Your task to perform on an android device: turn off location Image 0: 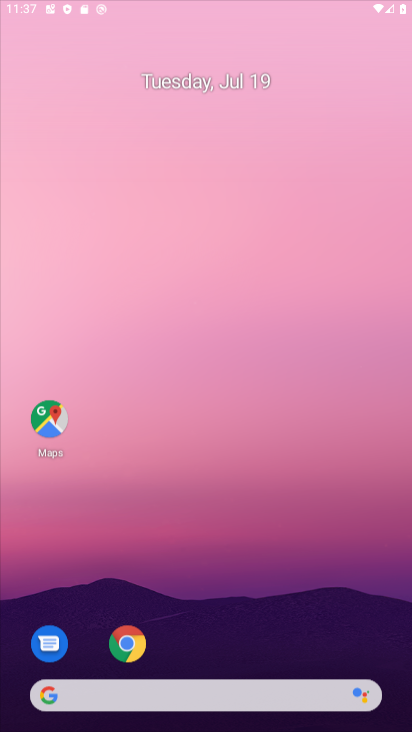
Step 0: press home button
Your task to perform on an android device: turn off location Image 1: 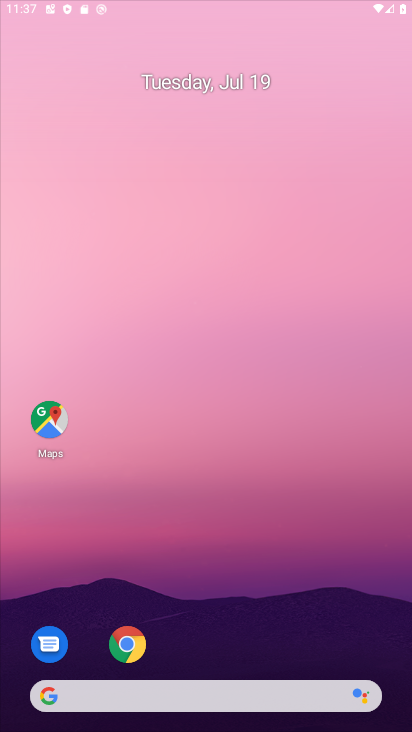
Step 1: drag from (346, 549) to (410, 481)
Your task to perform on an android device: turn off location Image 2: 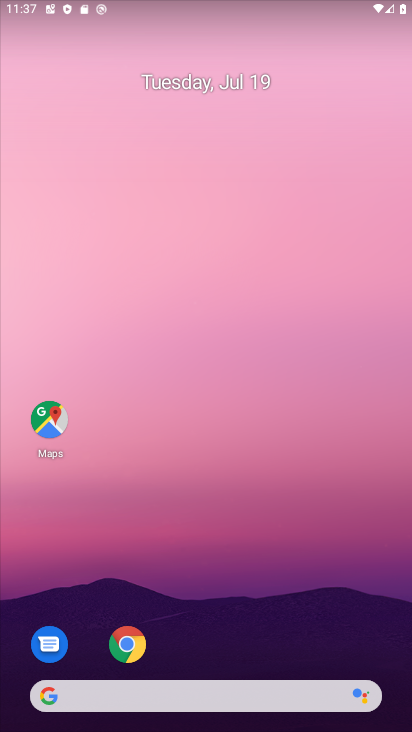
Step 2: drag from (282, 690) to (297, 228)
Your task to perform on an android device: turn off location Image 3: 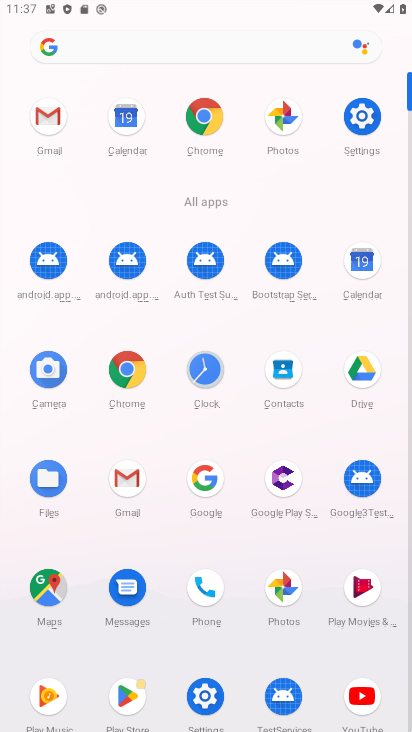
Step 3: click (362, 141)
Your task to perform on an android device: turn off location Image 4: 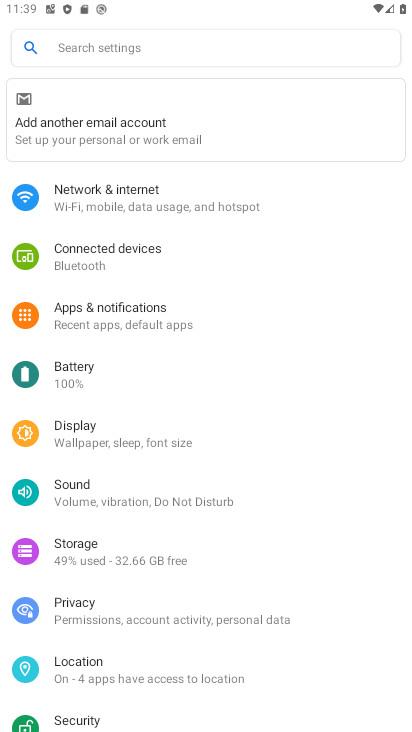
Step 4: drag from (107, 631) to (94, 524)
Your task to perform on an android device: turn off location Image 5: 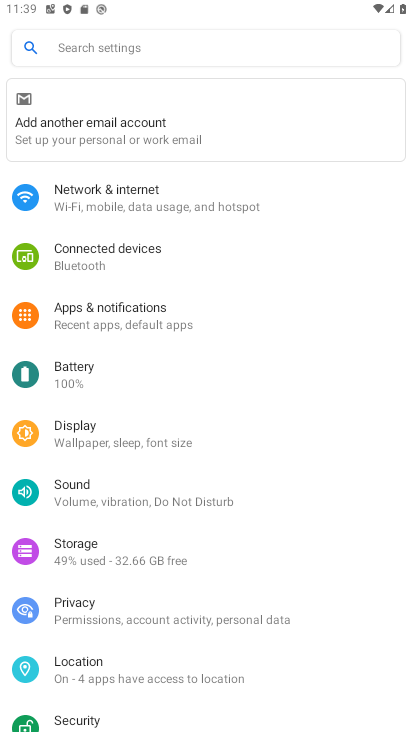
Step 5: click (76, 660)
Your task to perform on an android device: turn off location Image 6: 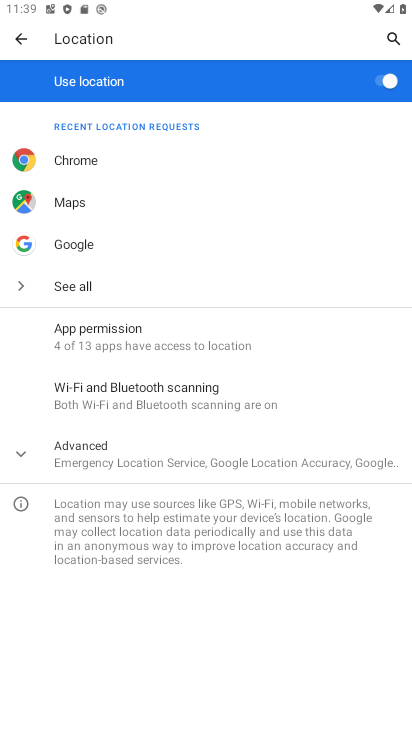
Step 6: click (259, 92)
Your task to perform on an android device: turn off location Image 7: 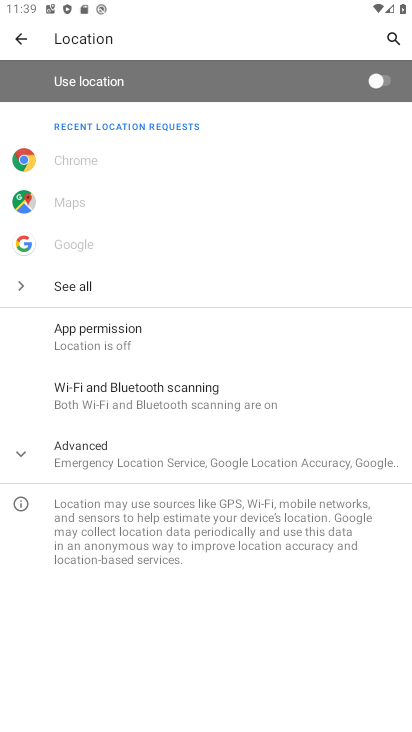
Step 7: task complete